Your task to perform on an android device: Go to CNN.com Image 0: 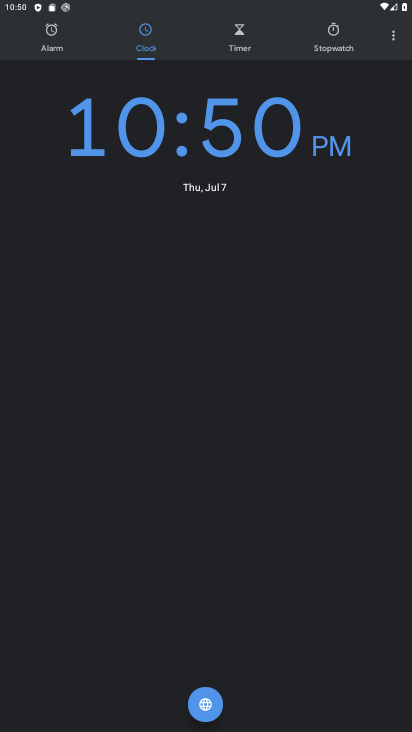
Step 0: press home button
Your task to perform on an android device: Go to CNN.com Image 1: 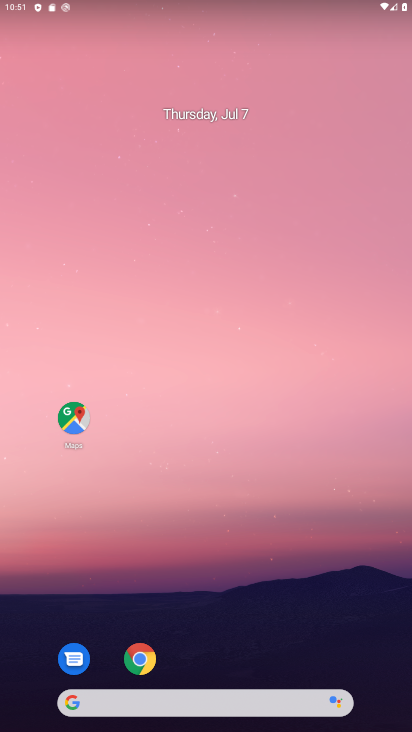
Step 1: drag from (177, 694) to (161, 242)
Your task to perform on an android device: Go to CNN.com Image 2: 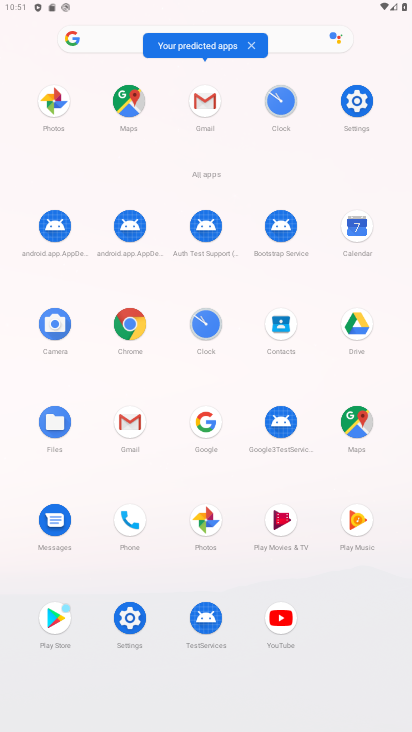
Step 2: click (202, 425)
Your task to perform on an android device: Go to CNN.com Image 3: 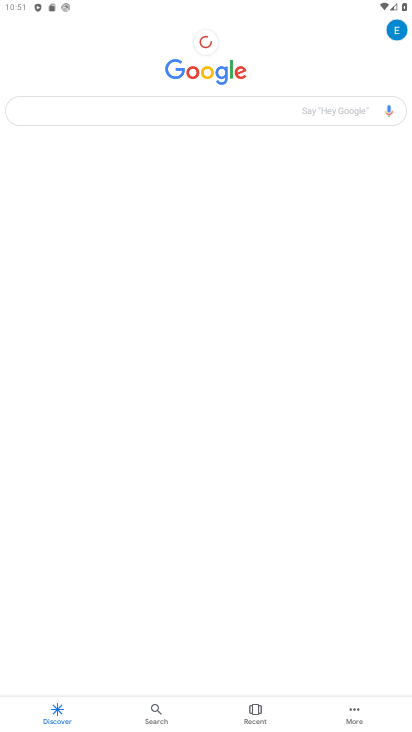
Step 3: click (70, 114)
Your task to perform on an android device: Go to CNN.com Image 4: 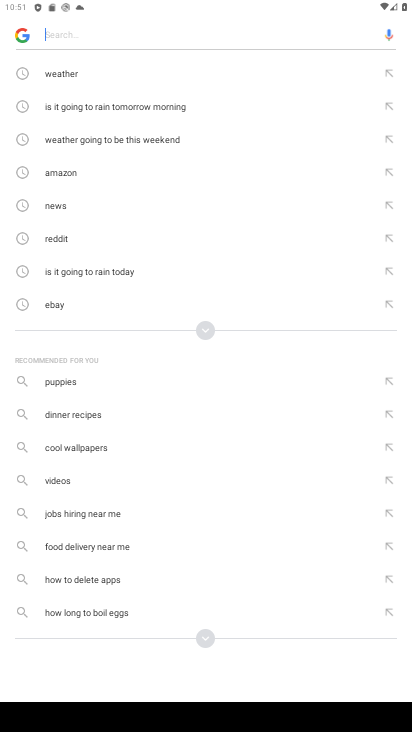
Step 4: type "CNN.com"
Your task to perform on an android device: Go to CNN.com Image 5: 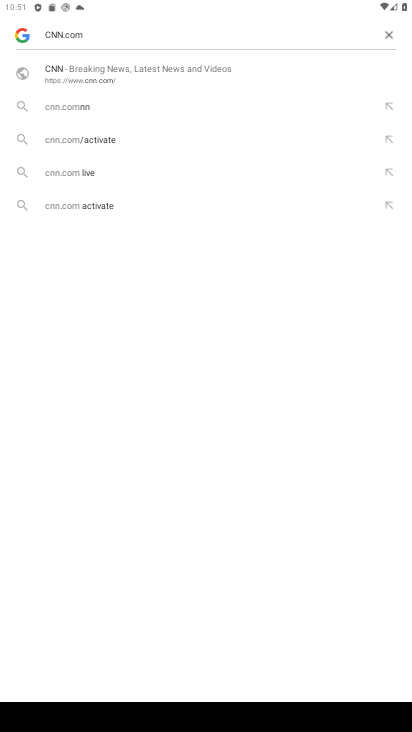
Step 5: click (68, 65)
Your task to perform on an android device: Go to CNN.com Image 6: 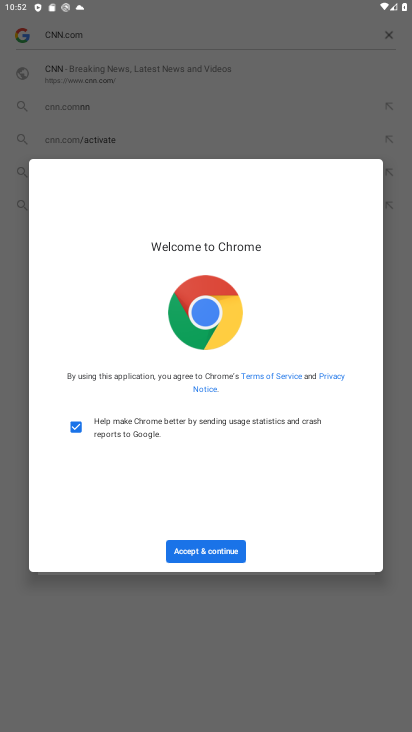
Step 6: click (192, 550)
Your task to perform on an android device: Go to CNN.com Image 7: 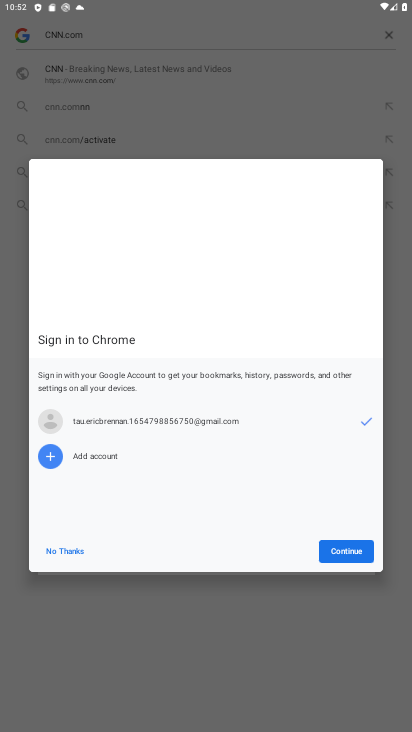
Step 7: click (357, 550)
Your task to perform on an android device: Go to CNN.com Image 8: 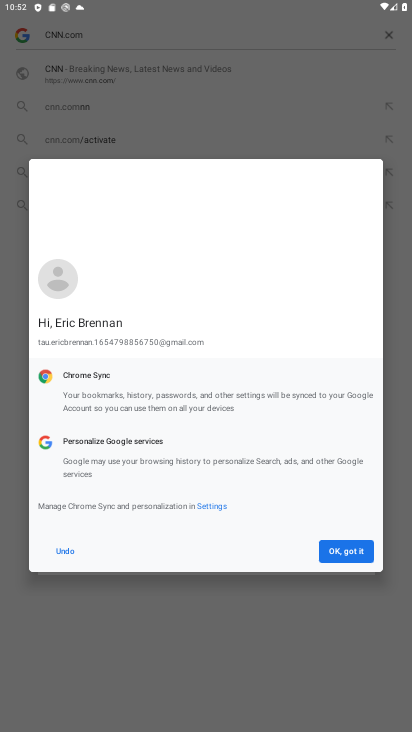
Step 8: click (356, 550)
Your task to perform on an android device: Go to CNN.com Image 9: 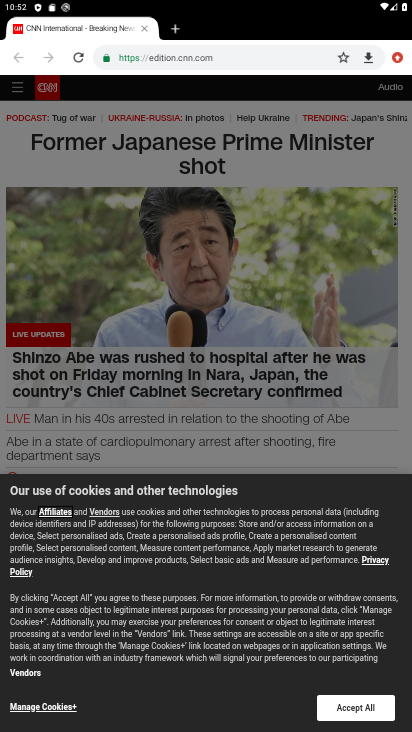
Step 9: task complete